Your task to perform on an android device: Go to Amazon Image 0: 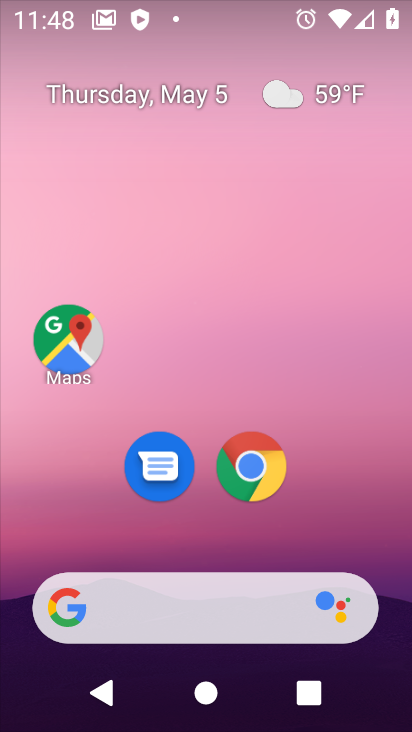
Step 0: click (254, 466)
Your task to perform on an android device: Go to Amazon Image 1: 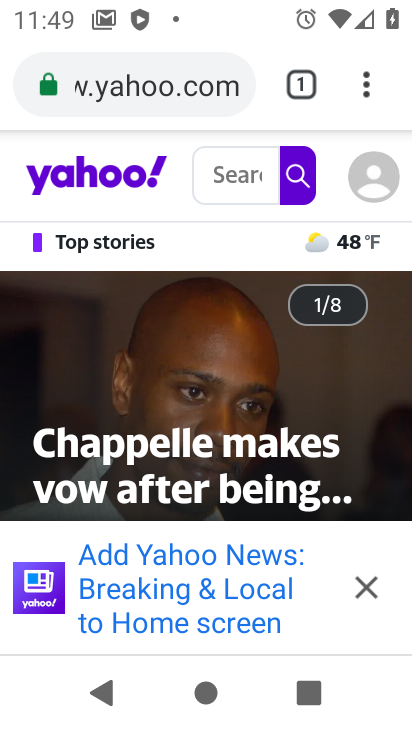
Step 1: click (152, 87)
Your task to perform on an android device: Go to Amazon Image 2: 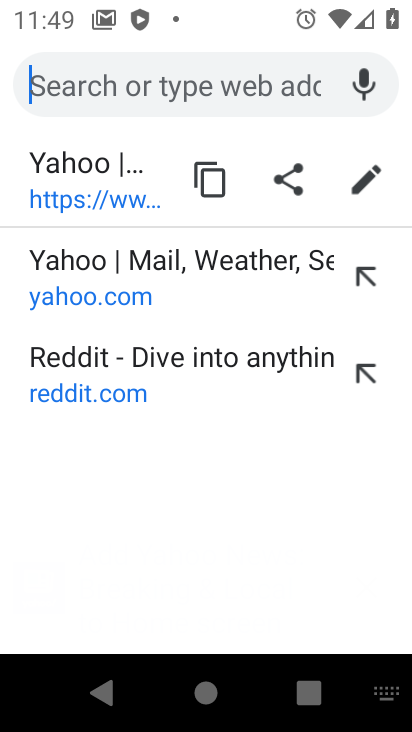
Step 2: type "amazon"
Your task to perform on an android device: Go to Amazon Image 3: 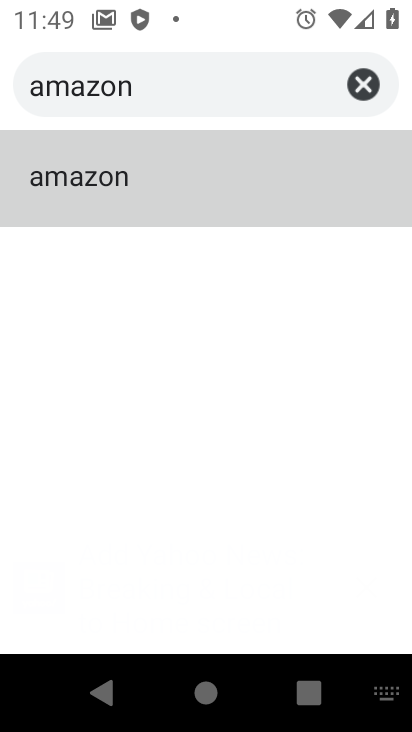
Step 3: click (87, 180)
Your task to perform on an android device: Go to Amazon Image 4: 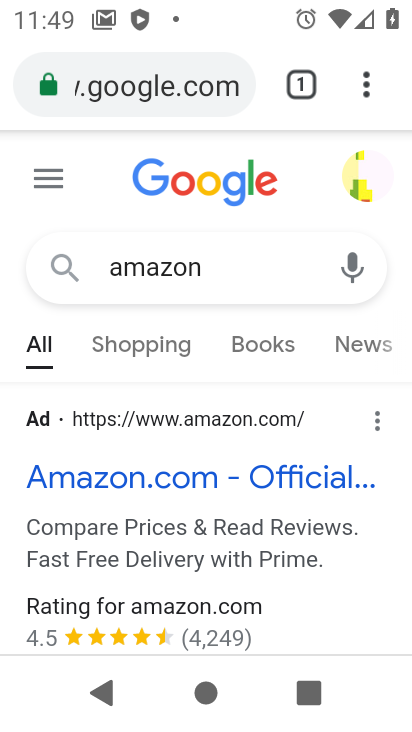
Step 4: task complete